Your task to perform on an android device: Go to ESPN.com Image 0: 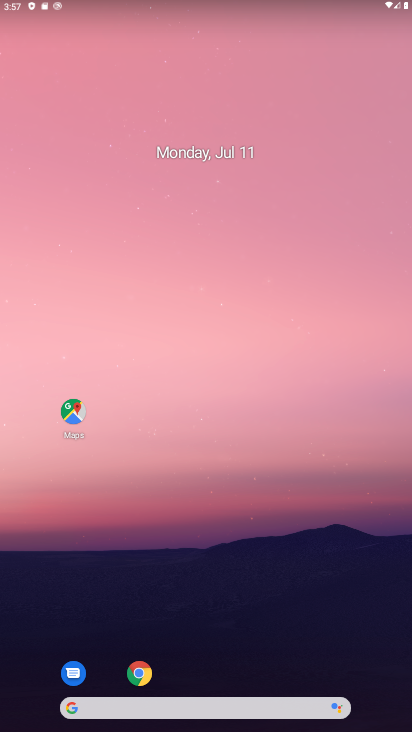
Step 0: drag from (384, 707) to (193, 41)
Your task to perform on an android device: Go to ESPN.com Image 1: 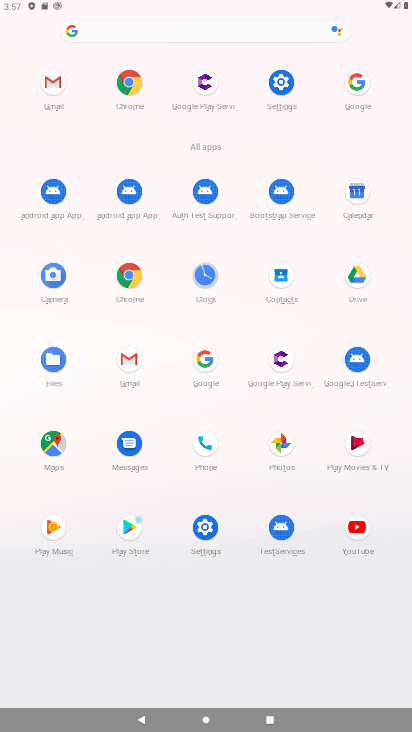
Step 1: click (195, 357)
Your task to perform on an android device: Go to ESPN.com Image 2: 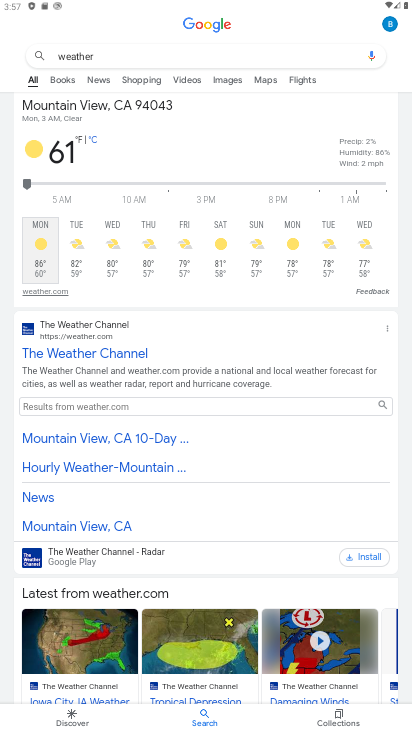
Step 2: press back button
Your task to perform on an android device: Go to ESPN.com Image 3: 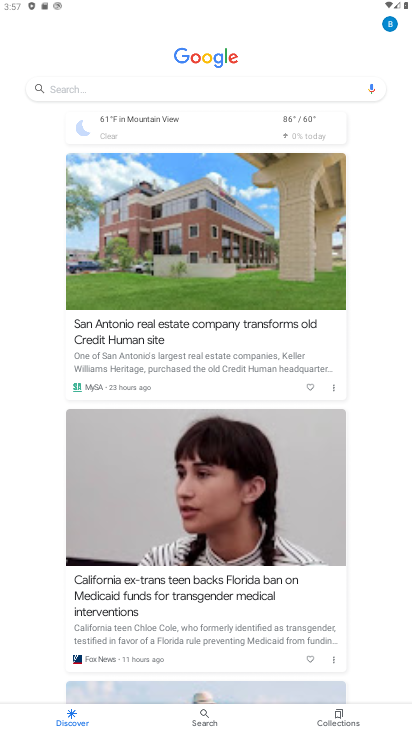
Step 3: click (67, 79)
Your task to perform on an android device: Go to ESPN.com Image 4: 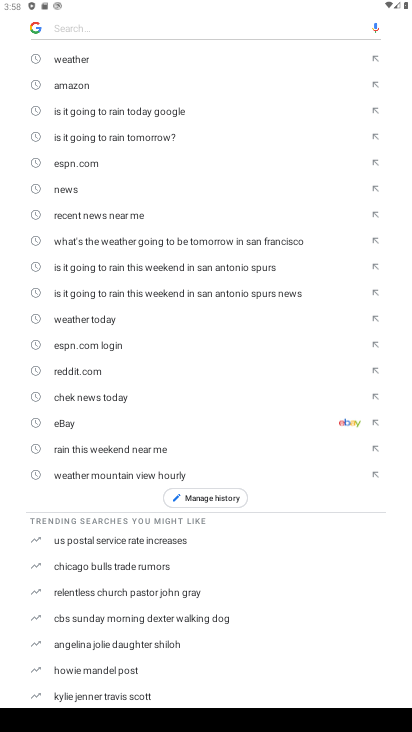
Step 4: type "ESPN.com"
Your task to perform on an android device: Go to ESPN.com Image 5: 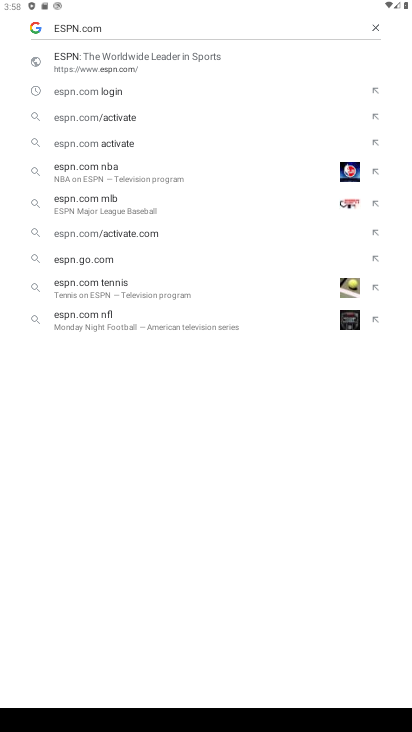
Step 5: click (87, 54)
Your task to perform on an android device: Go to ESPN.com Image 6: 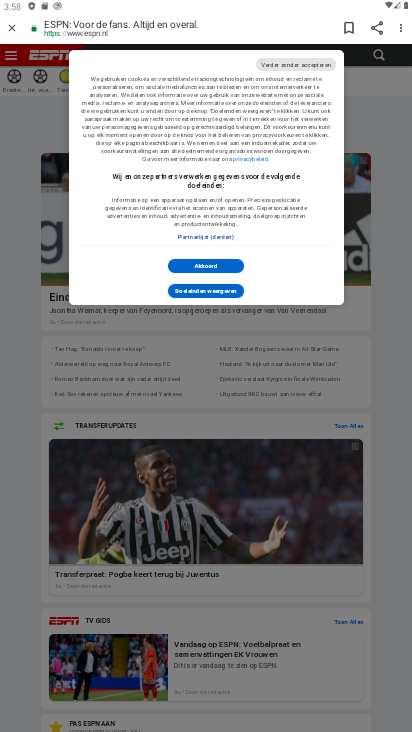
Step 6: task complete